Your task to perform on an android device: Search for pizza restaurants on Maps Image 0: 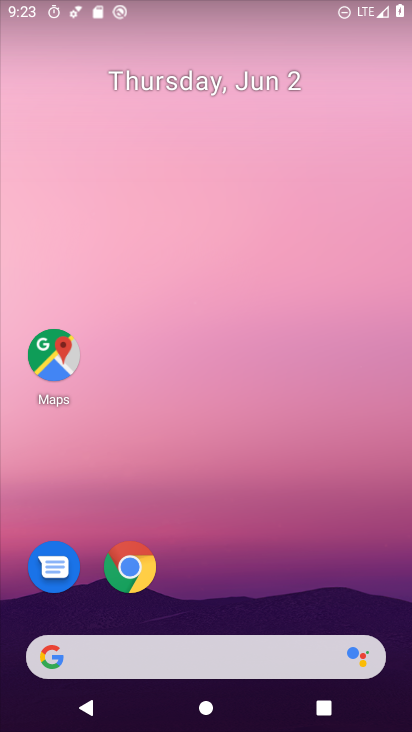
Step 0: drag from (251, 581) to (308, 112)
Your task to perform on an android device: Search for pizza restaurants on Maps Image 1: 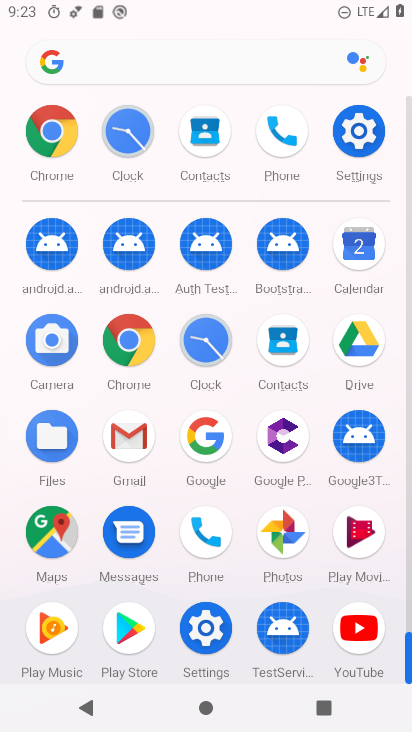
Step 1: click (63, 543)
Your task to perform on an android device: Search for pizza restaurants on Maps Image 2: 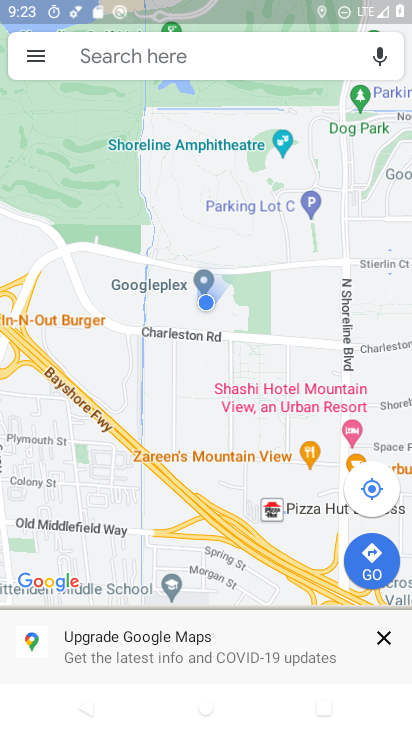
Step 2: click (248, 54)
Your task to perform on an android device: Search for pizza restaurants on Maps Image 3: 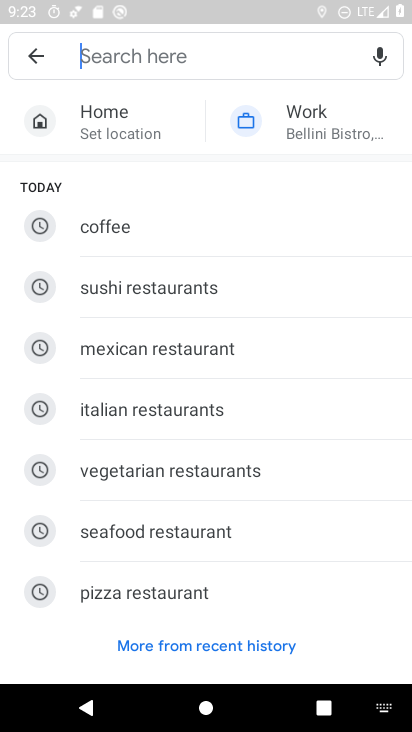
Step 3: click (249, 591)
Your task to perform on an android device: Search for pizza restaurants on Maps Image 4: 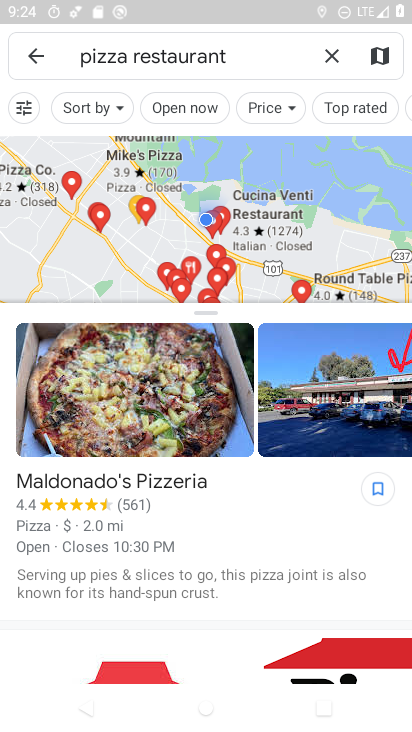
Step 4: task complete